Your task to perform on an android device: open chrome privacy settings Image 0: 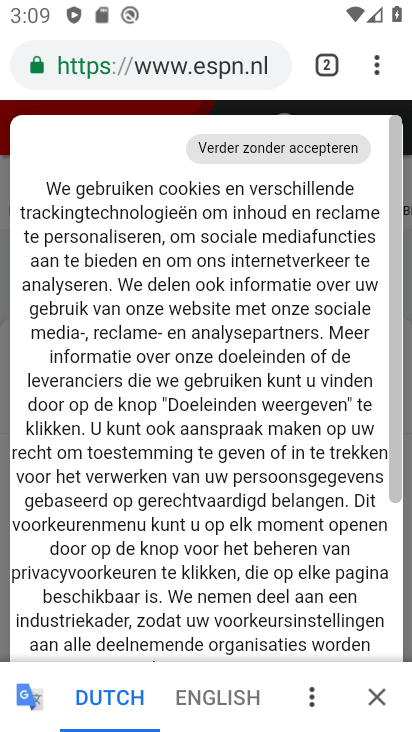
Step 0: press home button
Your task to perform on an android device: open chrome privacy settings Image 1: 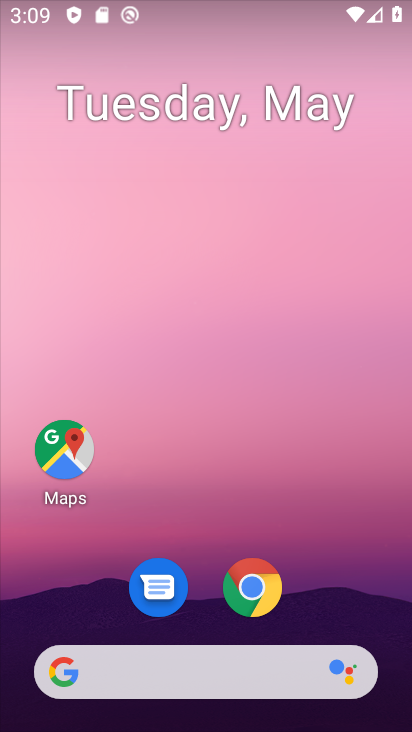
Step 1: click (243, 568)
Your task to perform on an android device: open chrome privacy settings Image 2: 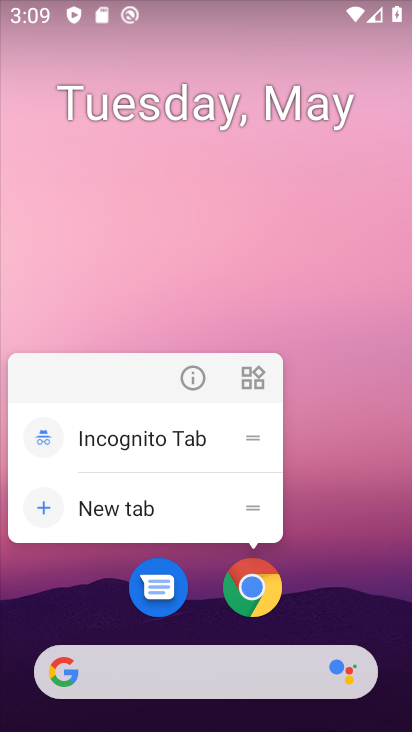
Step 2: click (257, 577)
Your task to perform on an android device: open chrome privacy settings Image 3: 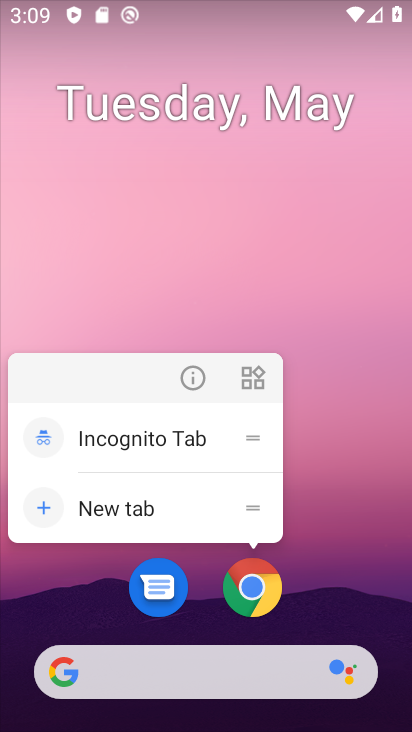
Step 3: click (257, 577)
Your task to perform on an android device: open chrome privacy settings Image 4: 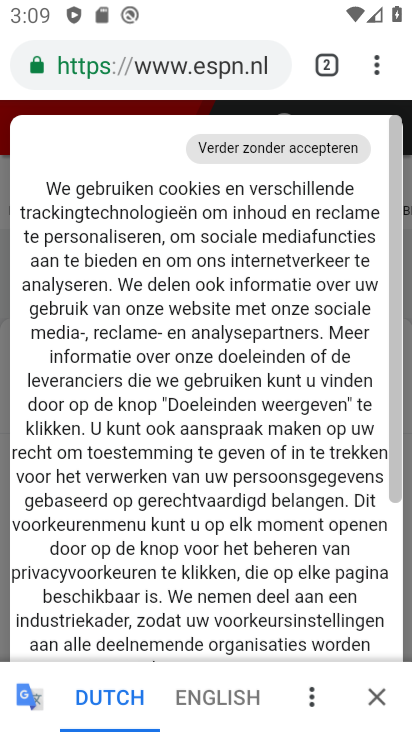
Step 4: click (380, 53)
Your task to perform on an android device: open chrome privacy settings Image 5: 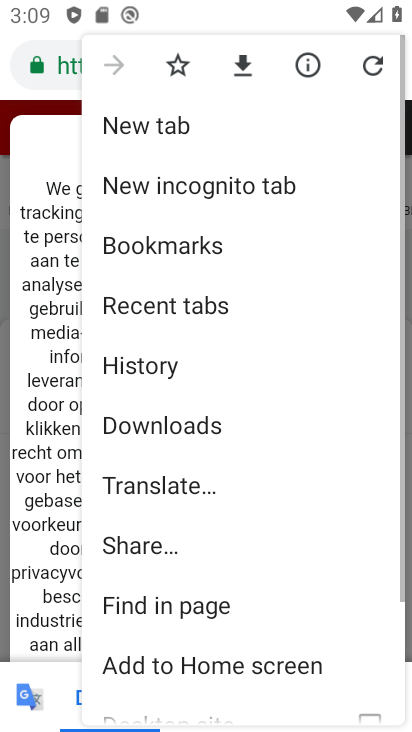
Step 5: drag from (201, 609) to (271, 265)
Your task to perform on an android device: open chrome privacy settings Image 6: 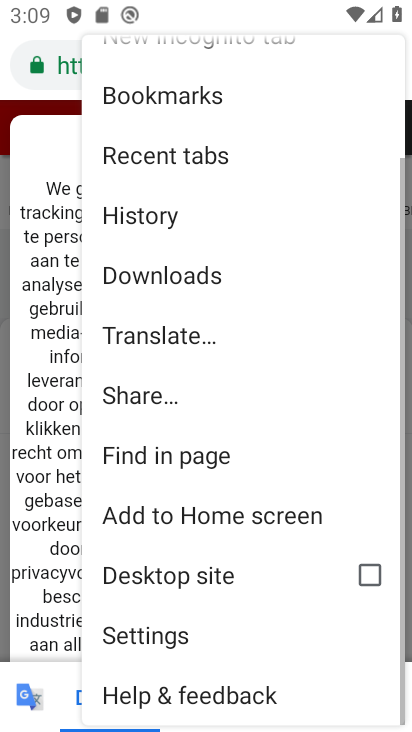
Step 6: click (163, 618)
Your task to perform on an android device: open chrome privacy settings Image 7: 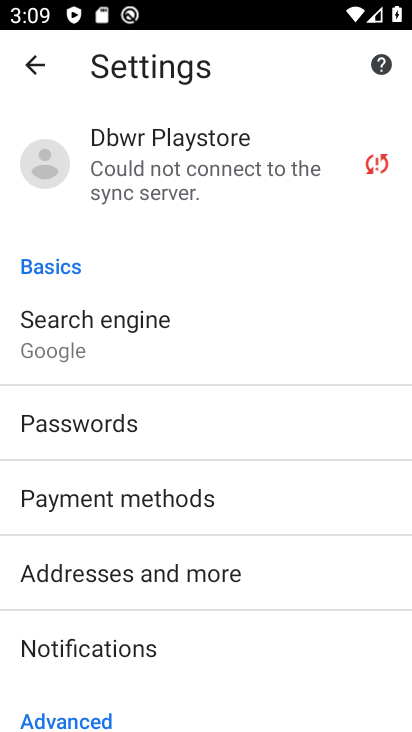
Step 7: drag from (211, 636) to (277, 254)
Your task to perform on an android device: open chrome privacy settings Image 8: 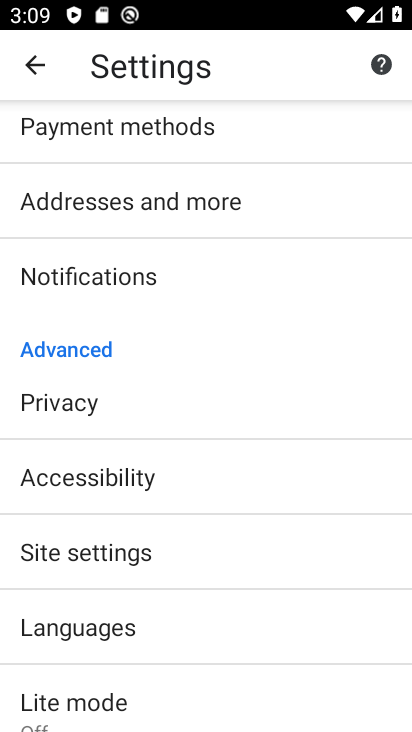
Step 8: click (115, 402)
Your task to perform on an android device: open chrome privacy settings Image 9: 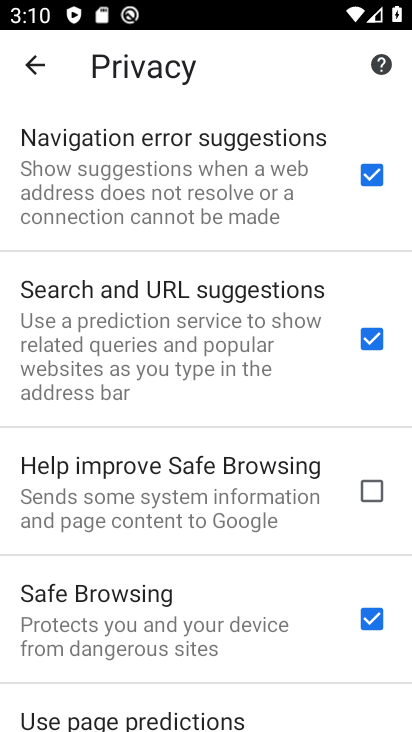
Step 9: task complete